Your task to perform on an android device: toggle notification dots Image 0: 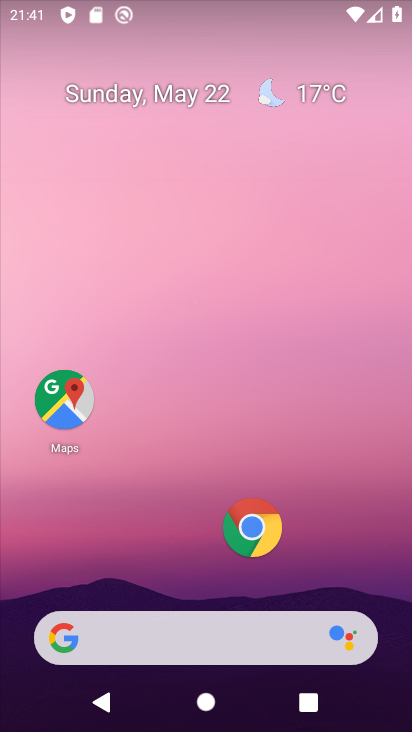
Step 0: drag from (176, 493) to (166, 47)
Your task to perform on an android device: toggle notification dots Image 1: 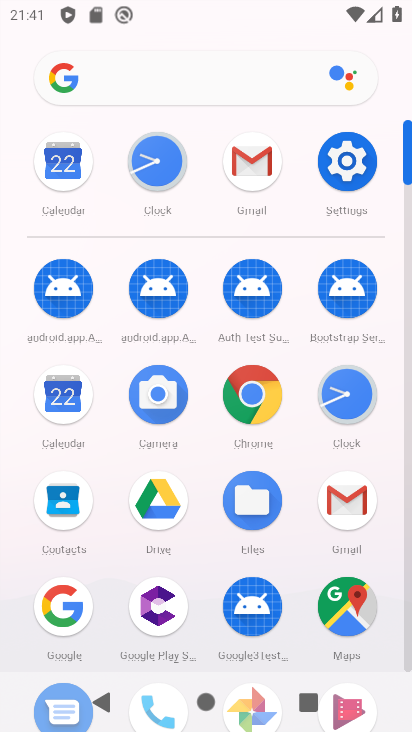
Step 1: click (348, 156)
Your task to perform on an android device: toggle notification dots Image 2: 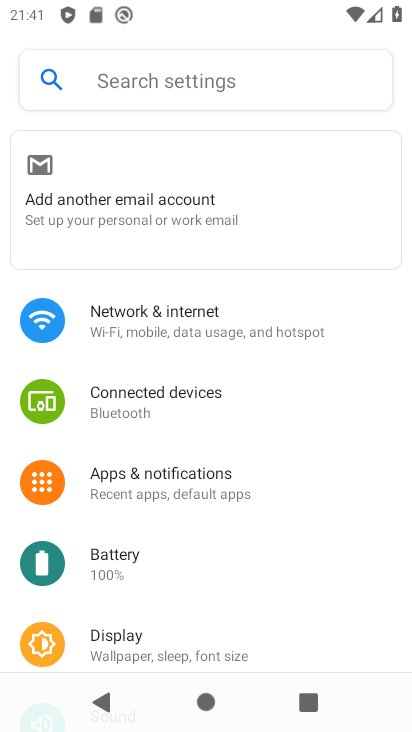
Step 2: click (171, 471)
Your task to perform on an android device: toggle notification dots Image 3: 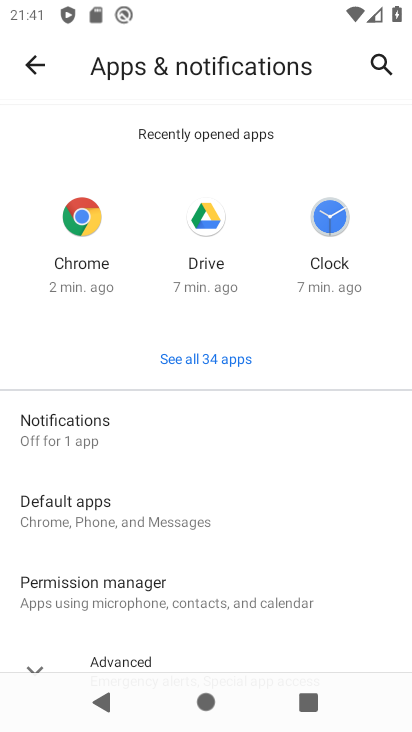
Step 3: drag from (252, 515) to (233, 254)
Your task to perform on an android device: toggle notification dots Image 4: 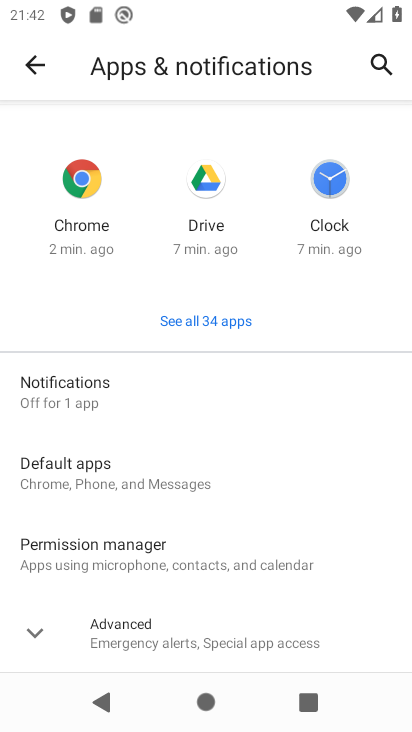
Step 4: click (80, 379)
Your task to perform on an android device: toggle notification dots Image 5: 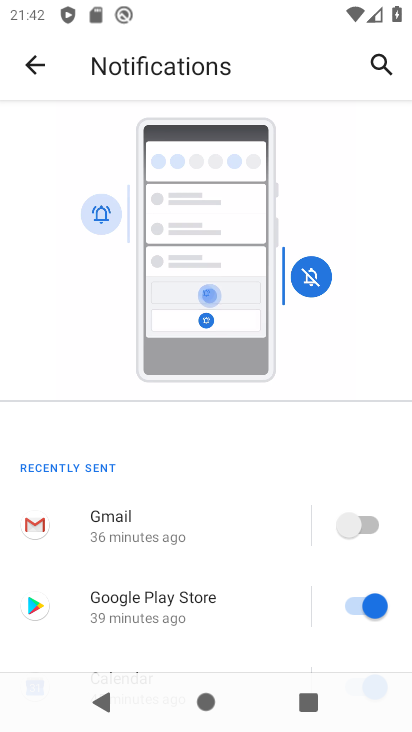
Step 5: drag from (236, 468) to (238, 146)
Your task to perform on an android device: toggle notification dots Image 6: 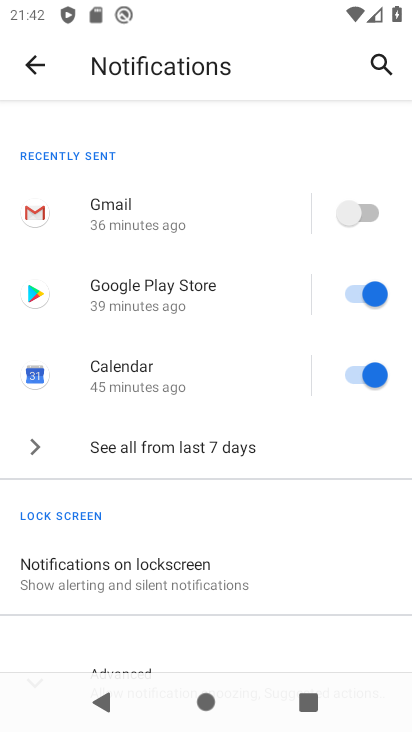
Step 6: drag from (290, 524) to (277, 234)
Your task to perform on an android device: toggle notification dots Image 7: 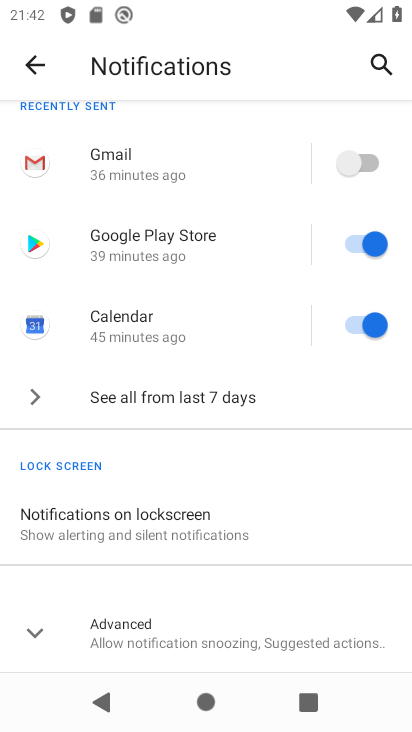
Step 7: click (36, 623)
Your task to perform on an android device: toggle notification dots Image 8: 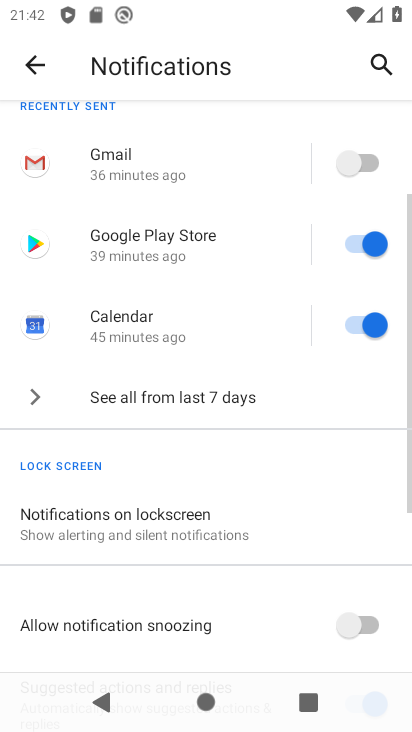
Step 8: drag from (274, 574) to (273, 104)
Your task to perform on an android device: toggle notification dots Image 9: 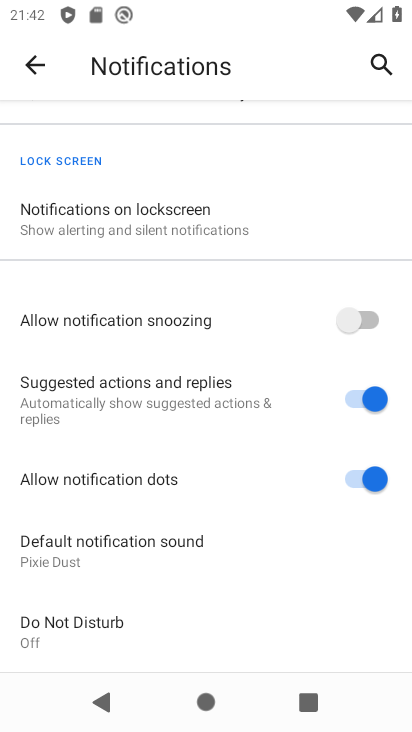
Step 9: click (366, 474)
Your task to perform on an android device: toggle notification dots Image 10: 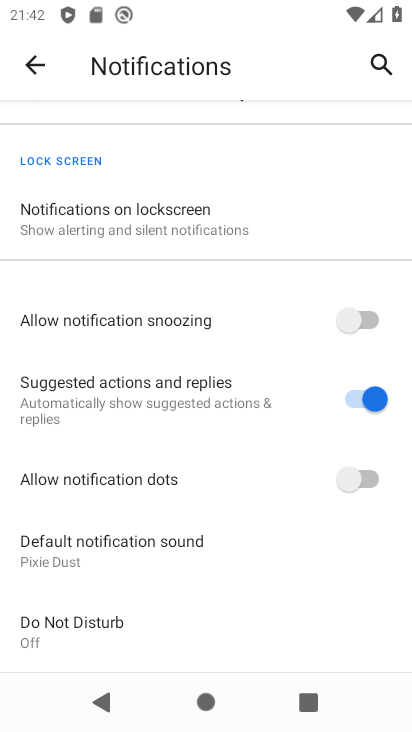
Step 10: task complete